Your task to perform on an android device: Toggle the flashlight Image 0: 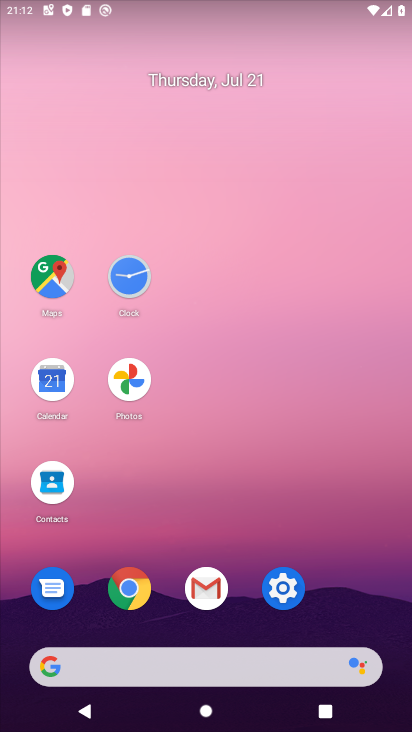
Step 0: click (288, 588)
Your task to perform on an android device: Toggle the flashlight Image 1: 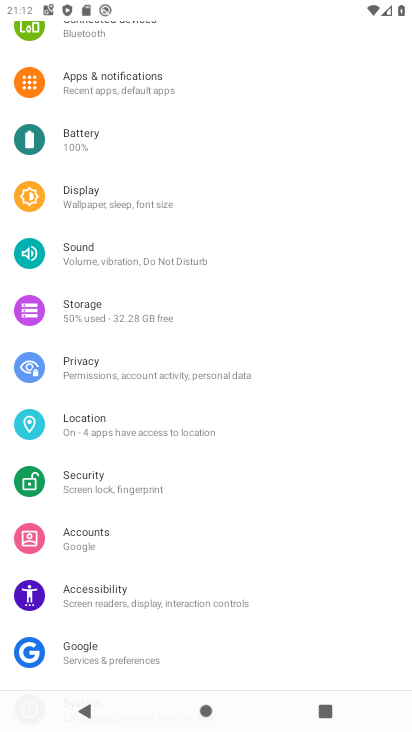
Step 1: click (79, 197)
Your task to perform on an android device: Toggle the flashlight Image 2: 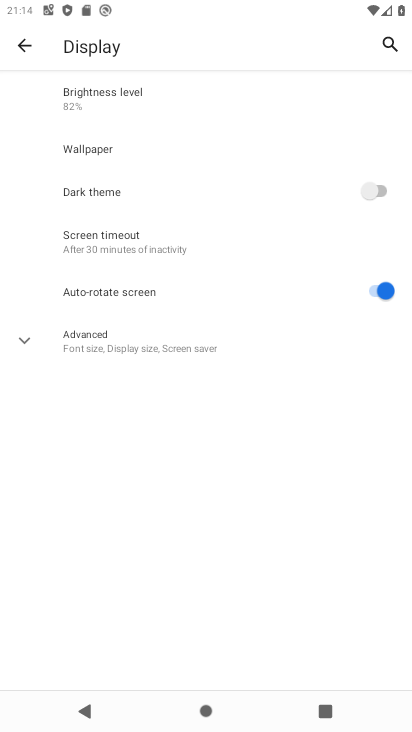
Step 2: task complete